Your task to perform on an android device: delete browsing data in the chrome app Image 0: 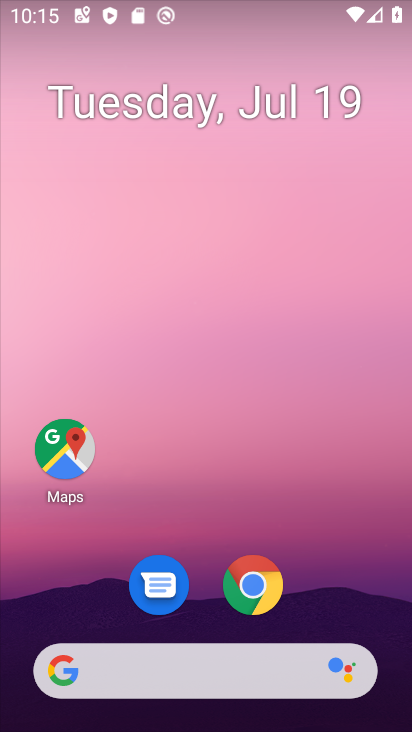
Step 0: click (246, 589)
Your task to perform on an android device: delete browsing data in the chrome app Image 1: 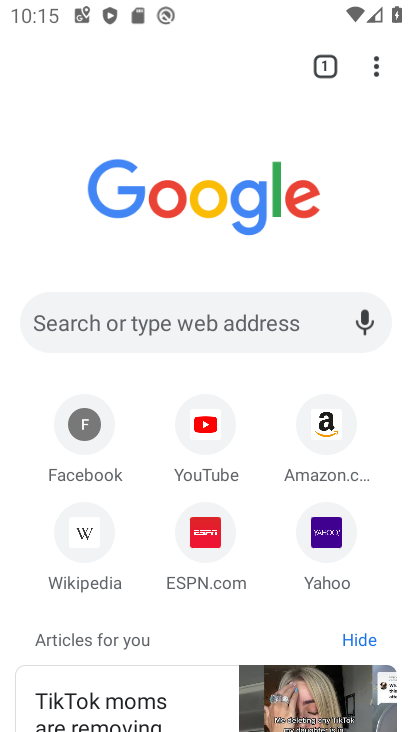
Step 1: click (375, 69)
Your task to perform on an android device: delete browsing data in the chrome app Image 2: 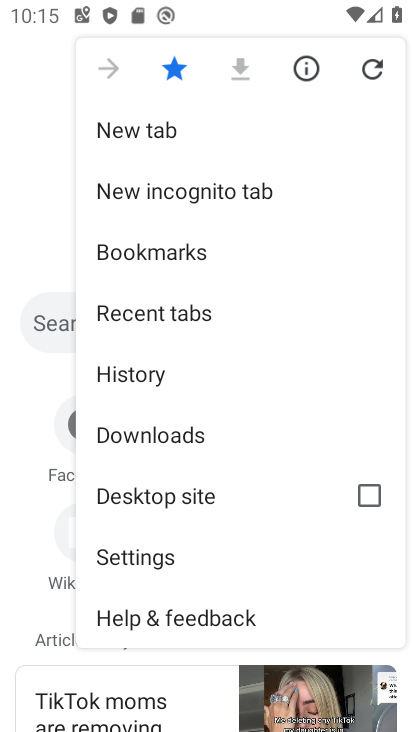
Step 2: click (144, 369)
Your task to perform on an android device: delete browsing data in the chrome app Image 3: 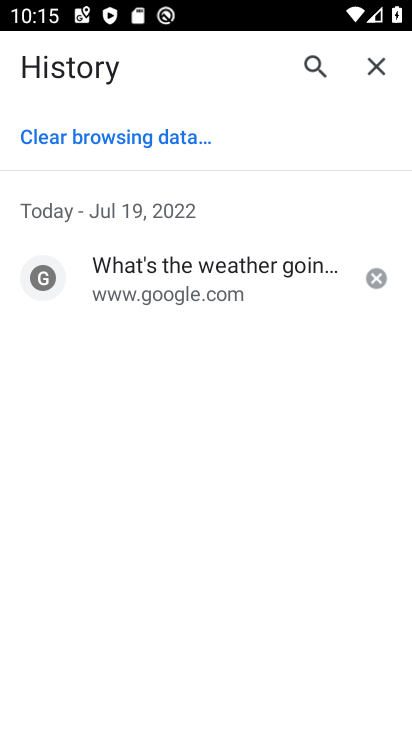
Step 3: click (139, 129)
Your task to perform on an android device: delete browsing data in the chrome app Image 4: 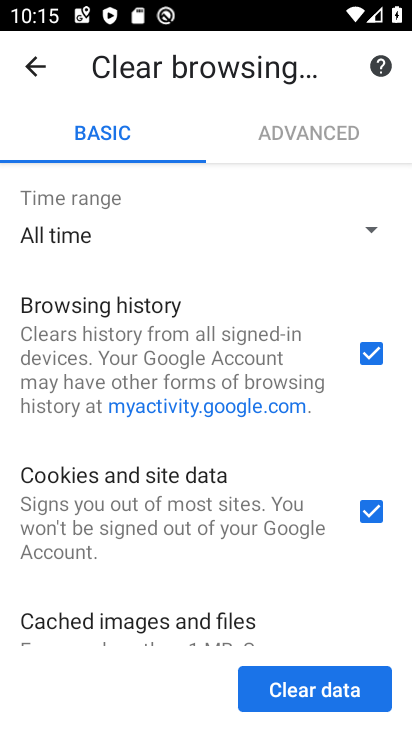
Step 4: drag from (274, 548) to (300, 415)
Your task to perform on an android device: delete browsing data in the chrome app Image 5: 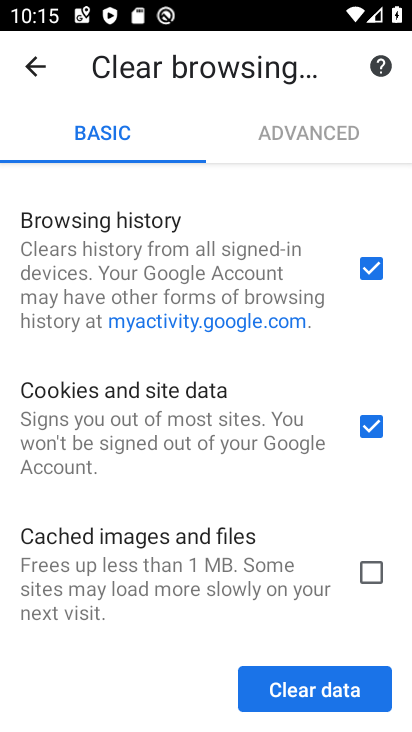
Step 5: click (368, 563)
Your task to perform on an android device: delete browsing data in the chrome app Image 6: 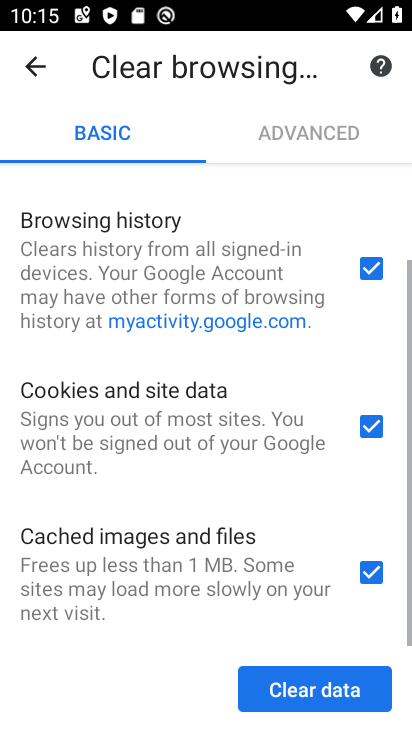
Step 6: click (348, 692)
Your task to perform on an android device: delete browsing data in the chrome app Image 7: 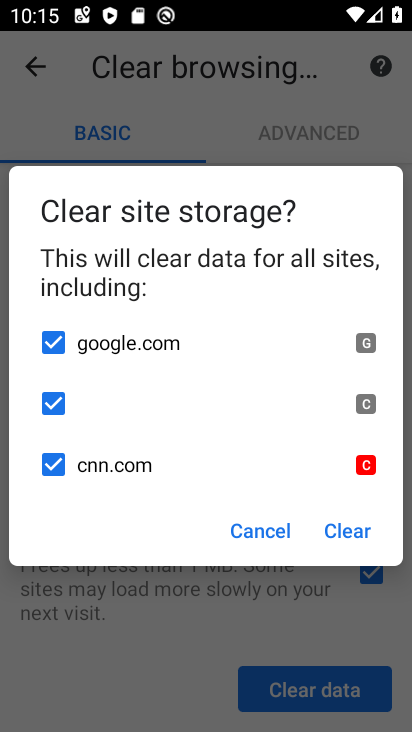
Step 7: click (350, 536)
Your task to perform on an android device: delete browsing data in the chrome app Image 8: 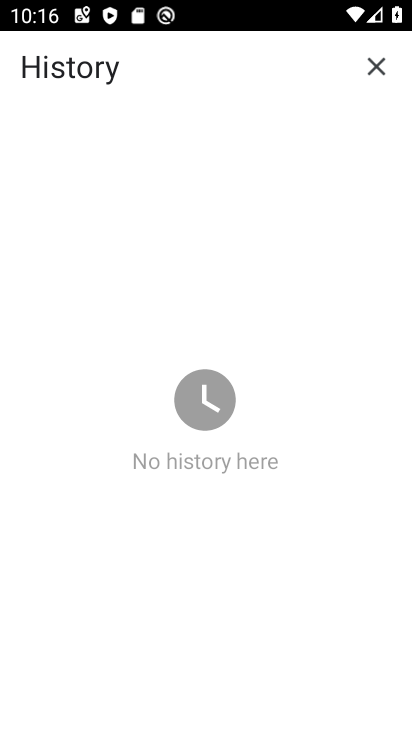
Step 8: task complete